Your task to perform on an android device: set an alarm Image 0: 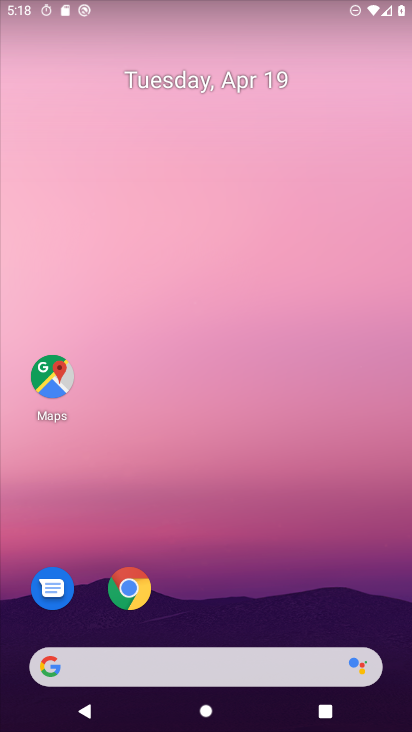
Step 0: drag from (219, 582) to (230, 123)
Your task to perform on an android device: set an alarm Image 1: 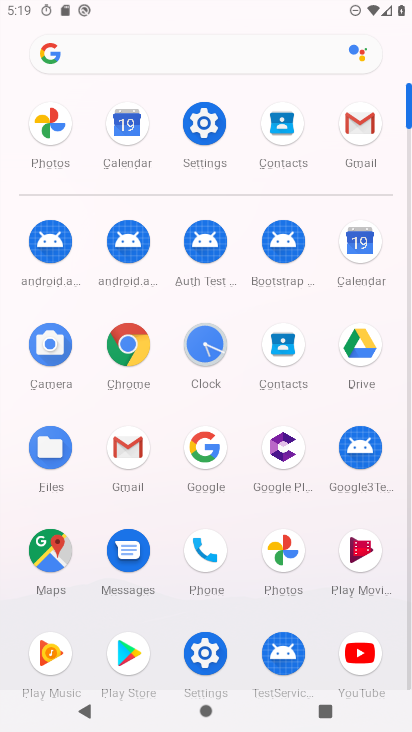
Step 1: click (201, 349)
Your task to perform on an android device: set an alarm Image 2: 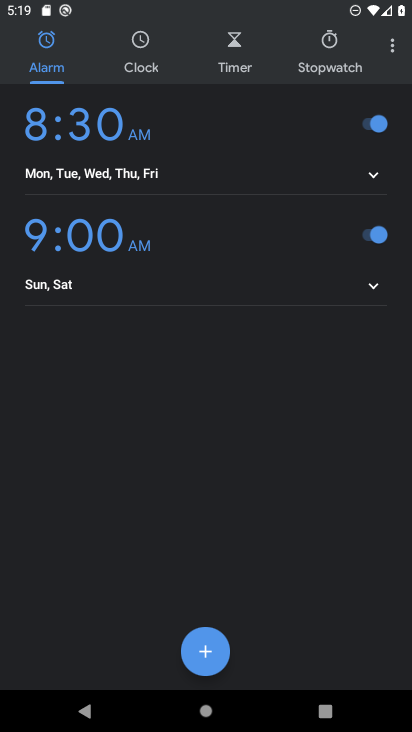
Step 2: click (211, 640)
Your task to perform on an android device: set an alarm Image 3: 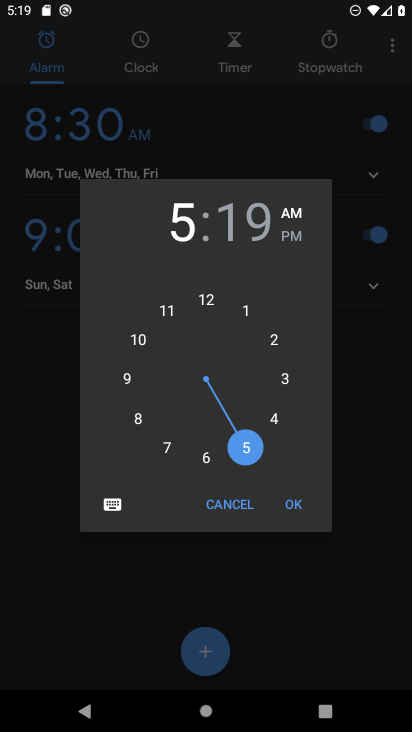
Step 3: click (286, 501)
Your task to perform on an android device: set an alarm Image 4: 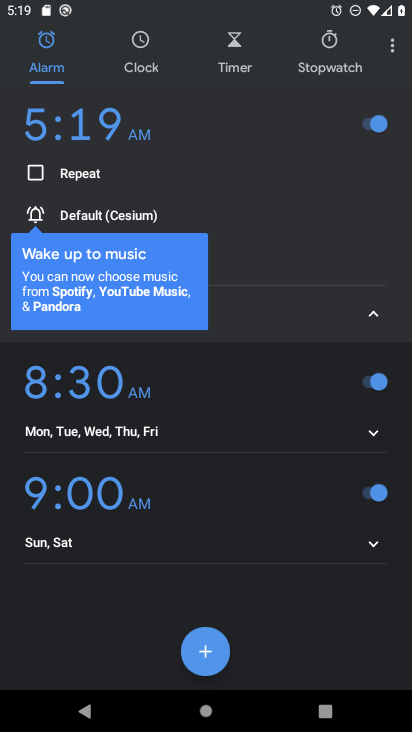
Step 4: task complete